Your task to perform on an android device: See recent photos Image 0: 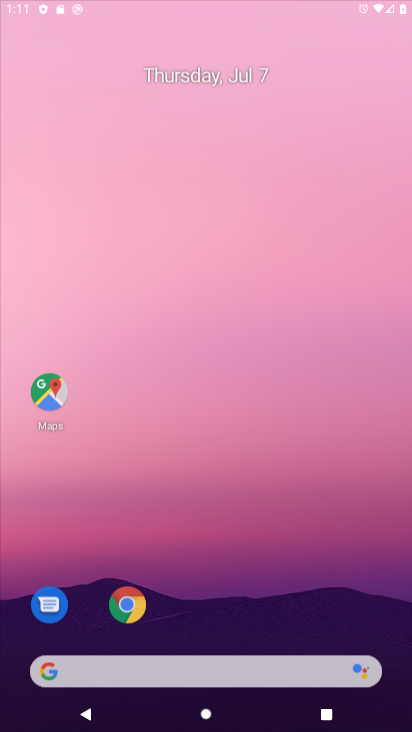
Step 0: click (265, 46)
Your task to perform on an android device: See recent photos Image 1: 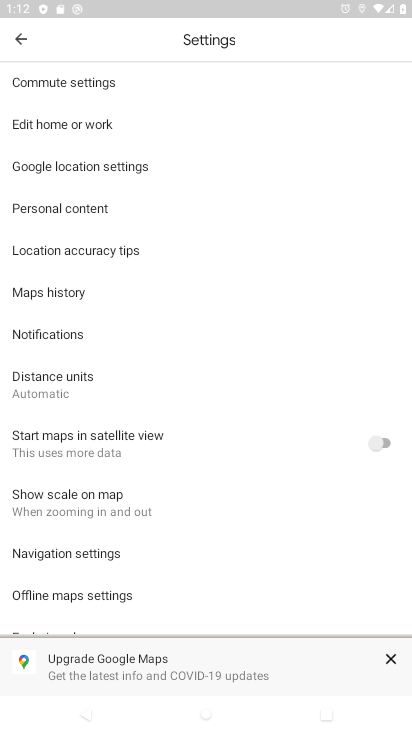
Step 1: press back button
Your task to perform on an android device: See recent photos Image 2: 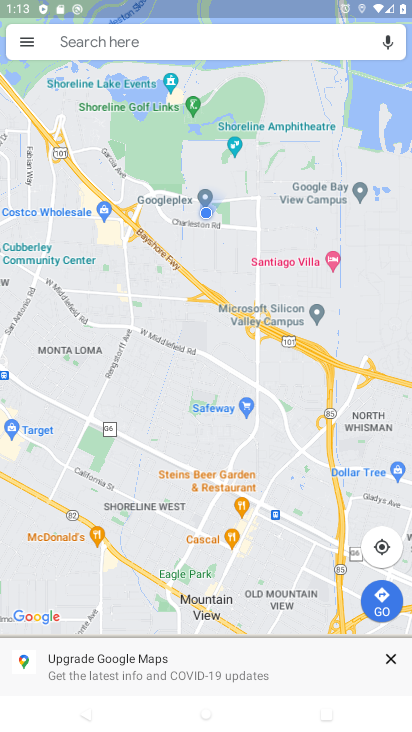
Step 2: press back button
Your task to perform on an android device: See recent photos Image 3: 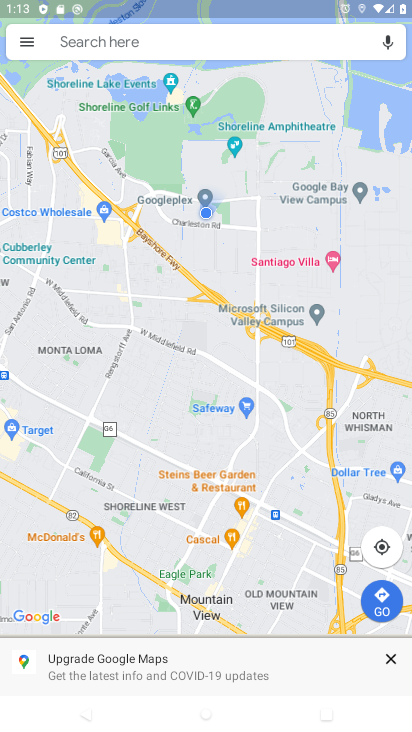
Step 3: press back button
Your task to perform on an android device: See recent photos Image 4: 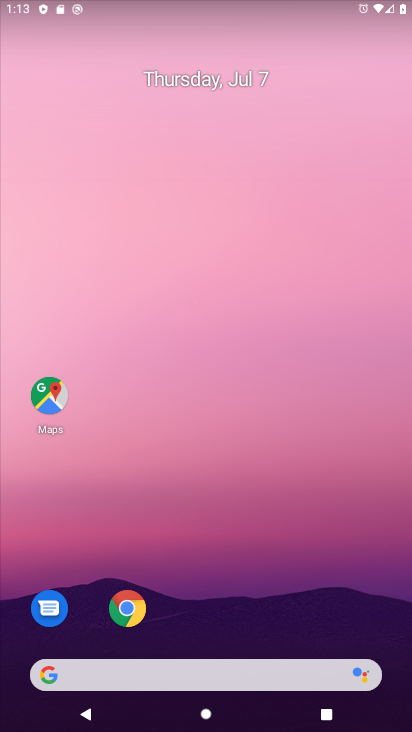
Step 4: press back button
Your task to perform on an android device: See recent photos Image 5: 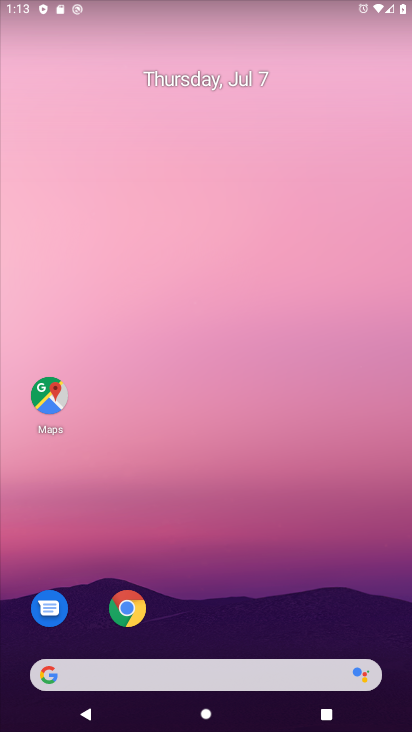
Step 5: drag from (233, 517) to (248, 14)
Your task to perform on an android device: See recent photos Image 6: 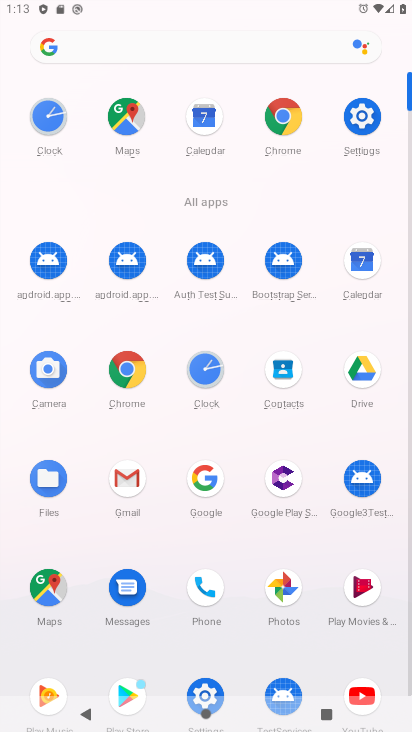
Step 6: click (283, 595)
Your task to perform on an android device: See recent photos Image 7: 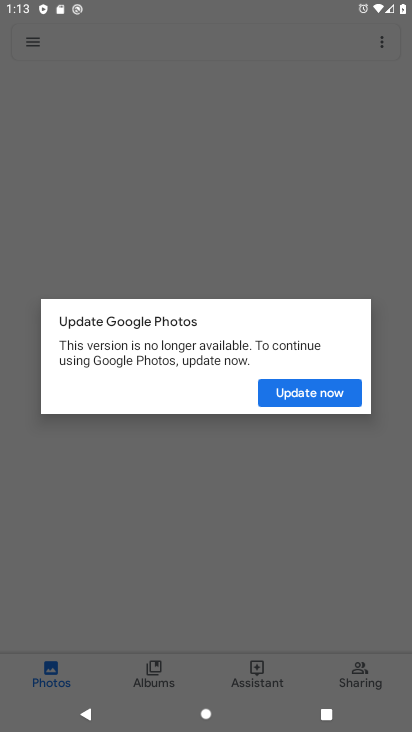
Step 7: click (40, 674)
Your task to perform on an android device: See recent photos Image 8: 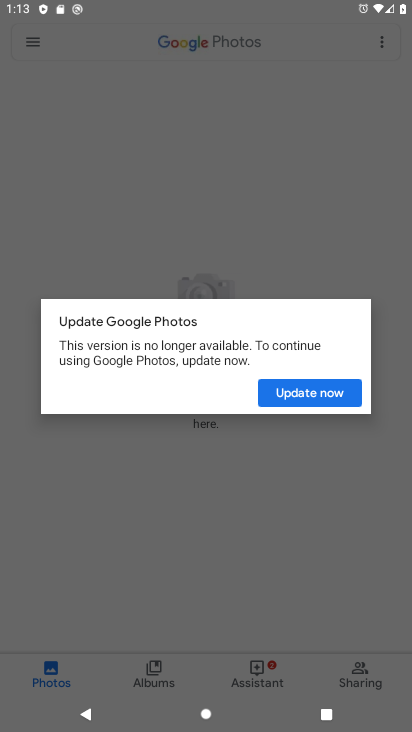
Step 8: task complete